Your task to perform on an android device: turn on priority inbox in the gmail app Image 0: 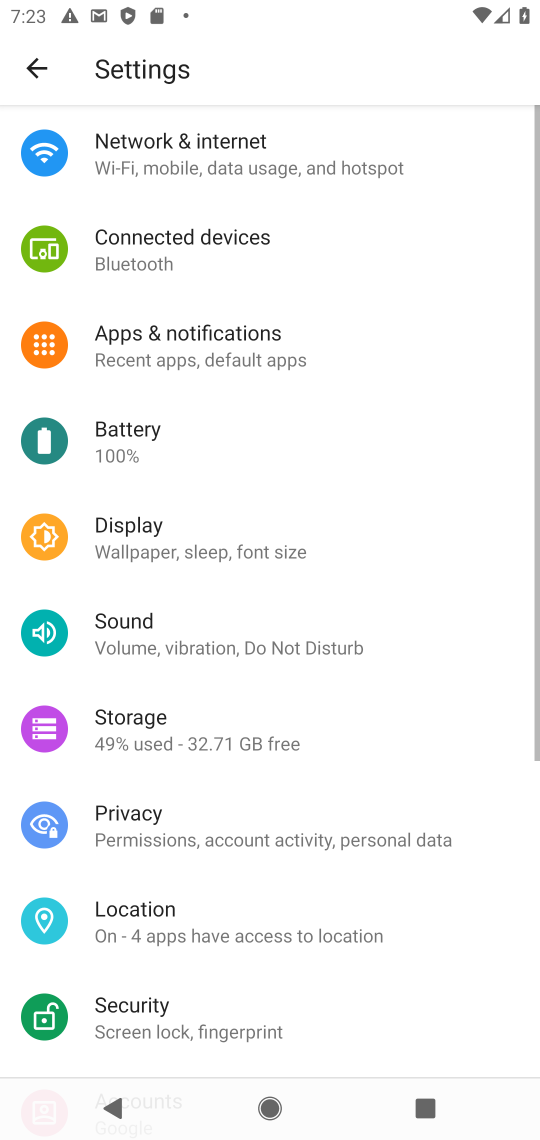
Step 0: press home button
Your task to perform on an android device: turn on priority inbox in the gmail app Image 1: 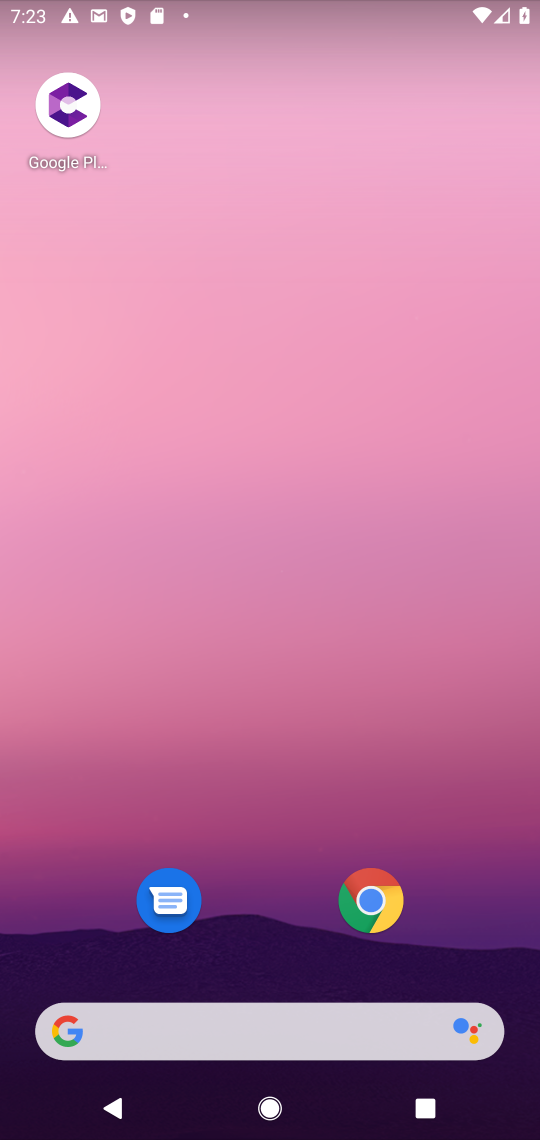
Step 1: drag from (240, 1026) to (249, 265)
Your task to perform on an android device: turn on priority inbox in the gmail app Image 2: 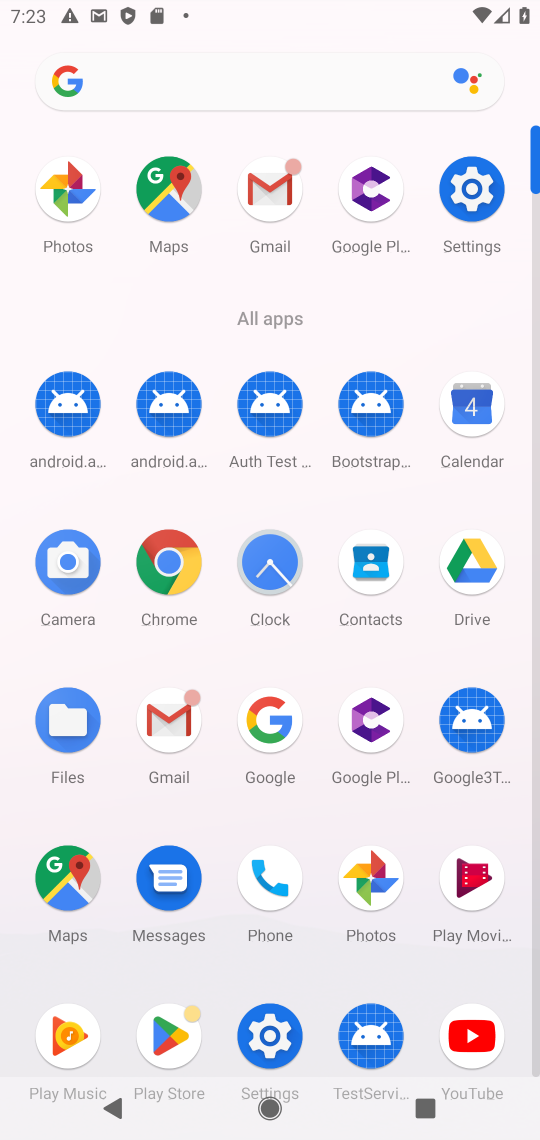
Step 2: click (167, 718)
Your task to perform on an android device: turn on priority inbox in the gmail app Image 3: 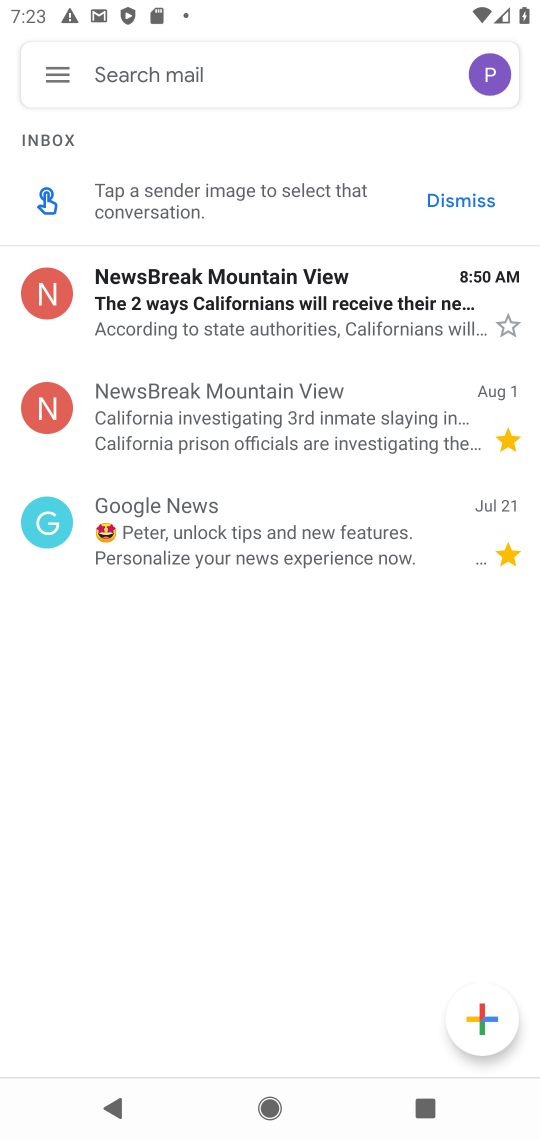
Step 3: click (53, 78)
Your task to perform on an android device: turn on priority inbox in the gmail app Image 4: 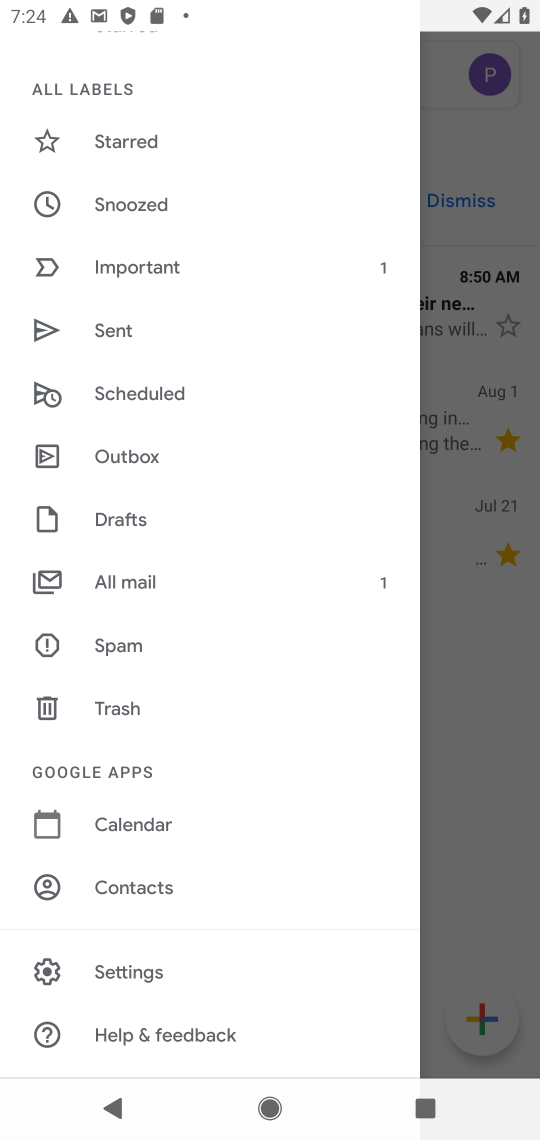
Step 4: click (121, 967)
Your task to perform on an android device: turn on priority inbox in the gmail app Image 5: 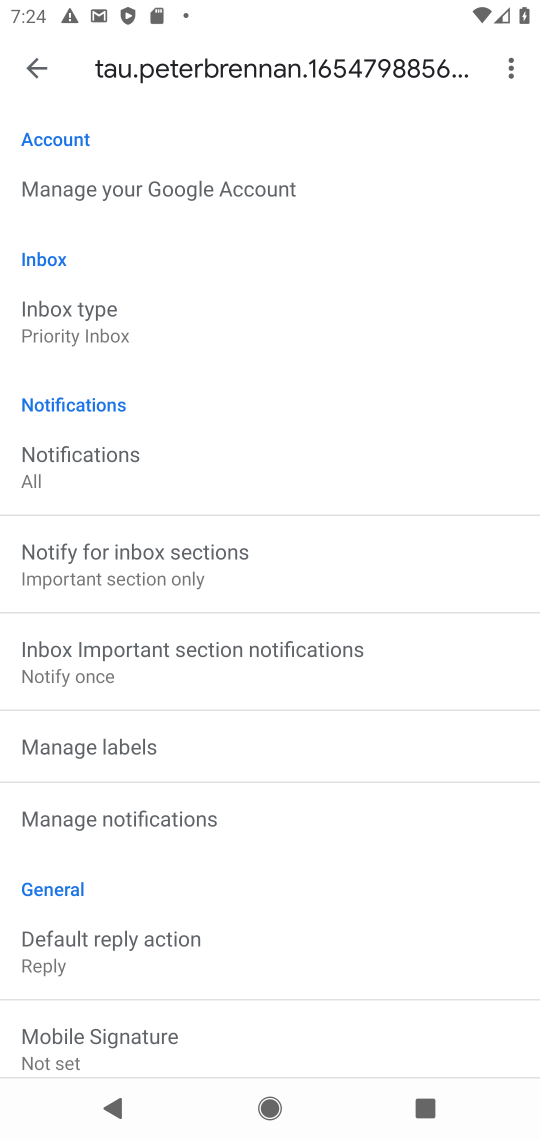
Step 5: task complete